Your task to perform on an android device: open app "Mercado Libre" (install if not already installed), go to login, and select forgot password Image 0: 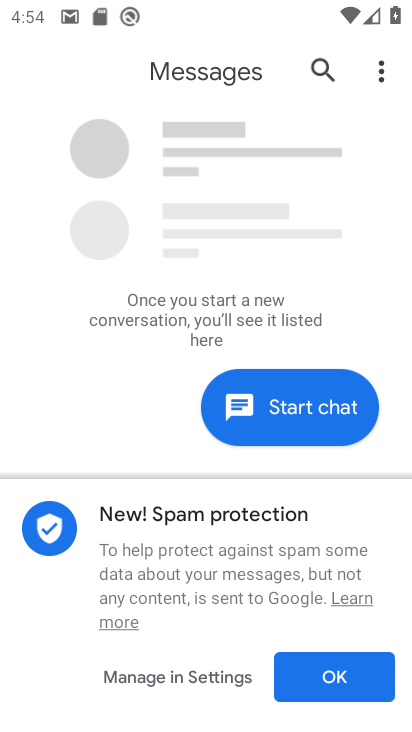
Step 0: drag from (199, 617) to (196, 165)
Your task to perform on an android device: open app "Mercado Libre" (install if not already installed), go to login, and select forgot password Image 1: 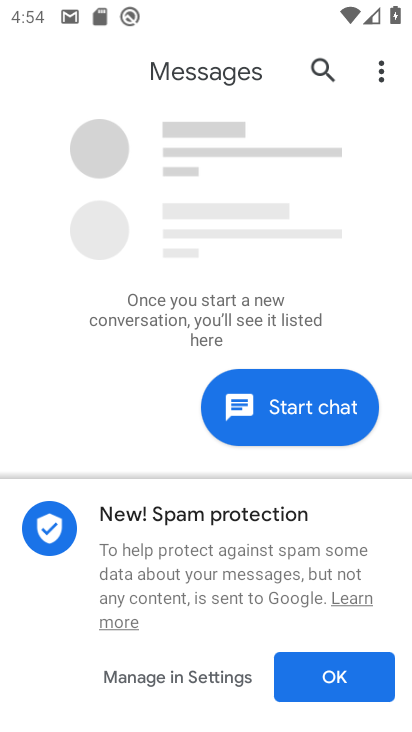
Step 1: press home button
Your task to perform on an android device: open app "Mercado Libre" (install if not already installed), go to login, and select forgot password Image 2: 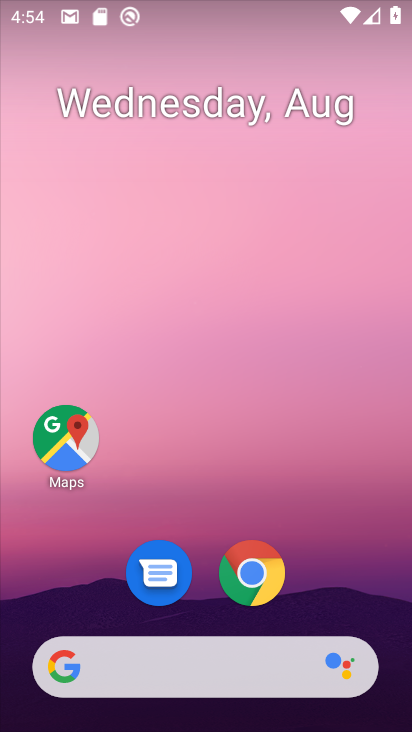
Step 2: drag from (196, 586) to (138, 168)
Your task to perform on an android device: open app "Mercado Libre" (install if not already installed), go to login, and select forgot password Image 3: 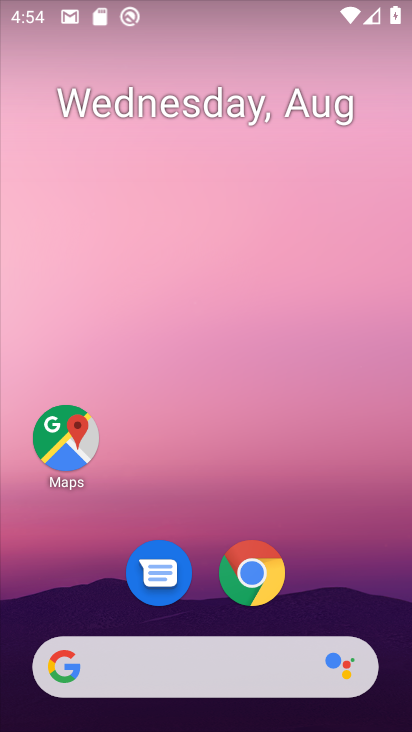
Step 3: click (204, 605)
Your task to perform on an android device: open app "Mercado Libre" (install if not already installed), go to login, and select forgot password Image 4: 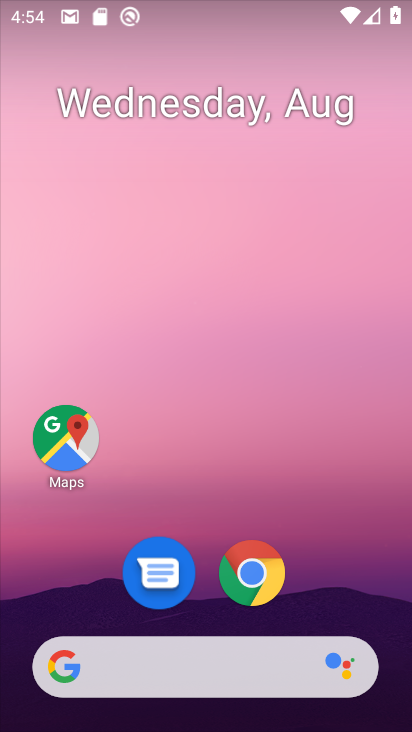
Step 4: drag from (204, 603) to (212, 118)
Your task to perform on an android device: open app "Mercado Libre" (install if not already installed), go to login, and select forgot password Image 5: 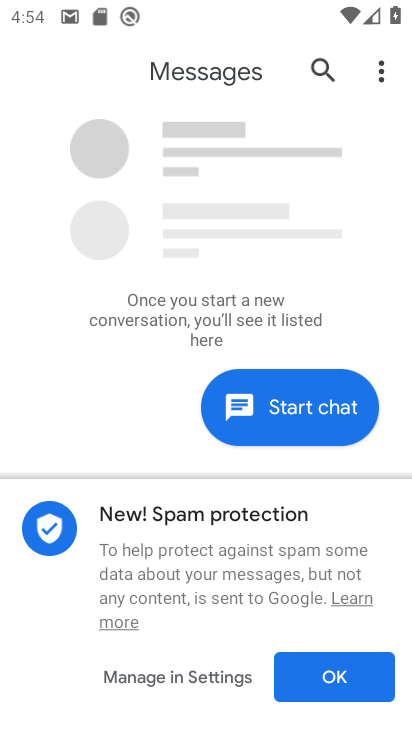
Step 5: press back button
Your task to perform on an android device: open app "Mercado Libre" (install if not already installed), go to login, and select forgot password Image 6: 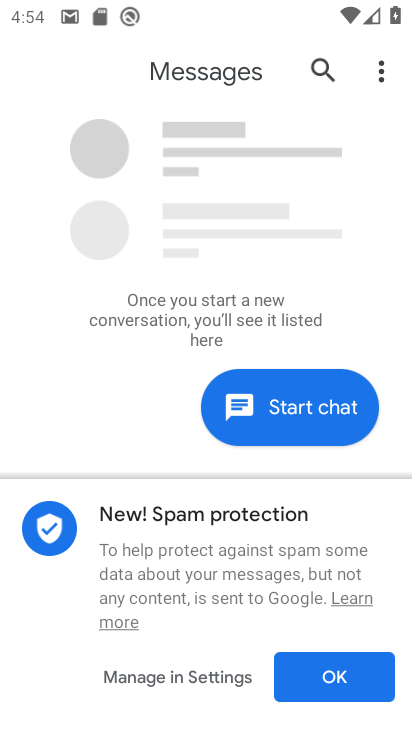
Step 6: press home button
Your task to perform on an android device: open app "Mercado Libre" (install if not already installed), go to login, and select forgot password Image 7: 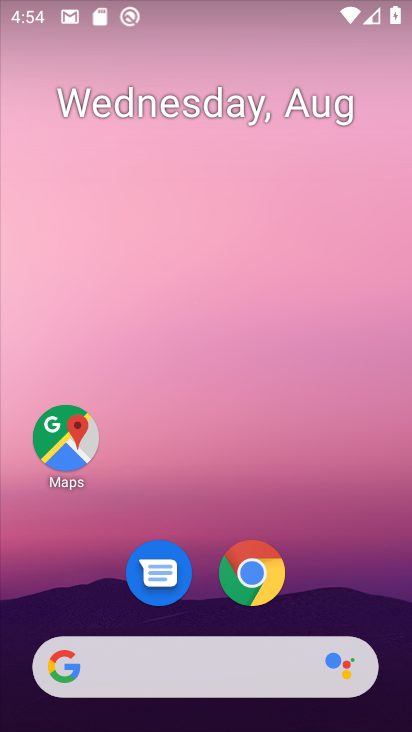
Step 7: drag from (194, 603) to (196, 152)
Your task to perform on an android device: open app "Mercado Libre" (install if not already installed), go to login, and select forgot password Image 8: 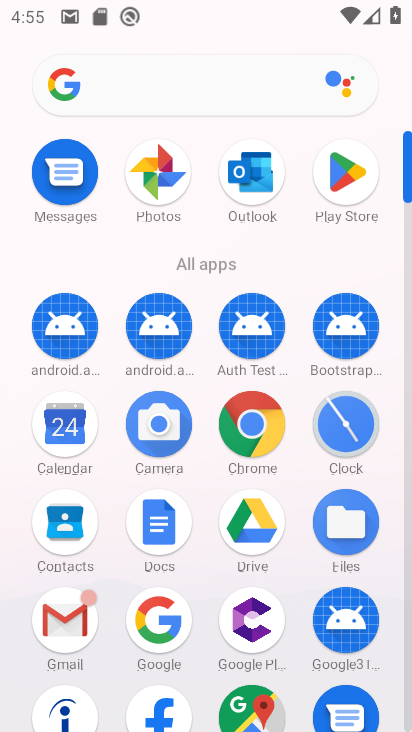
Step 8: click (336, 175)
Your task to perform on an android device: open app "Mercado Libre" (install if not already installed), go to login, and select forgot password Image 9: 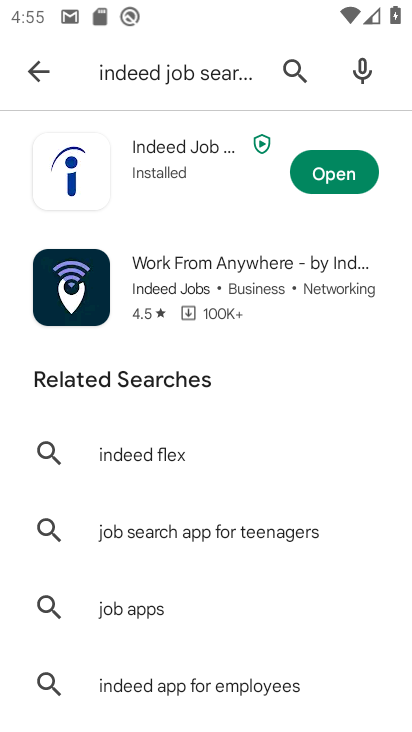
Step 9: click (34, 71)
Your task to perform on an android device: open app "Mercado Libre" (install if not already installed), go to login, and select forgot password Image 10: 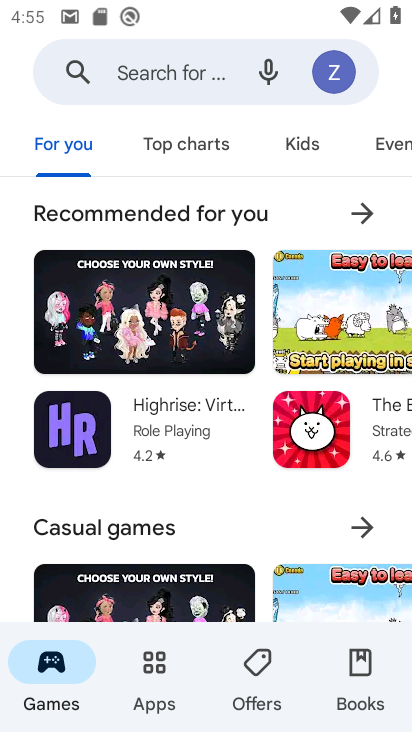
Step 10: click (187, 55)
Your task to perform on an android device: open app "Mercado Libre" (install if not already installed), go to login, and select forgot password Image 11: 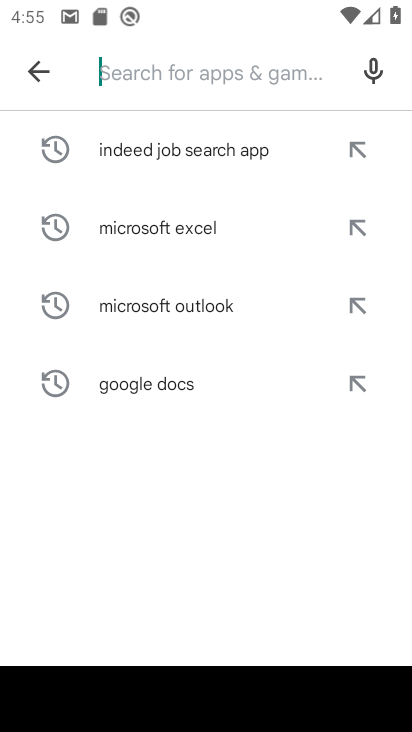
Step 11: type "Mercado Libre"
Your task to perform on an android device: open app "Mercado Libre" (install if not already installed), go to login, and select forgot password Image 12: 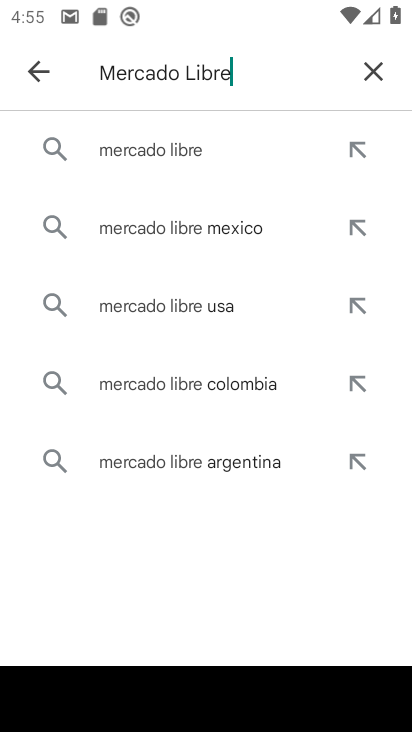
Step 12: click (164, 156)
Your task to perform on an android device: open app "Mercado Libre" (install if not already installed), go to login, and select forgot password Image 13: 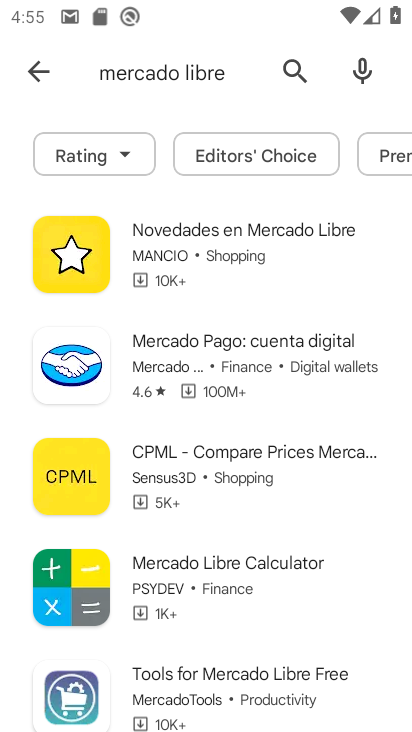
Step 13: task complete